Your task to perform on an android device: turn off picture-in-picture Image 0: 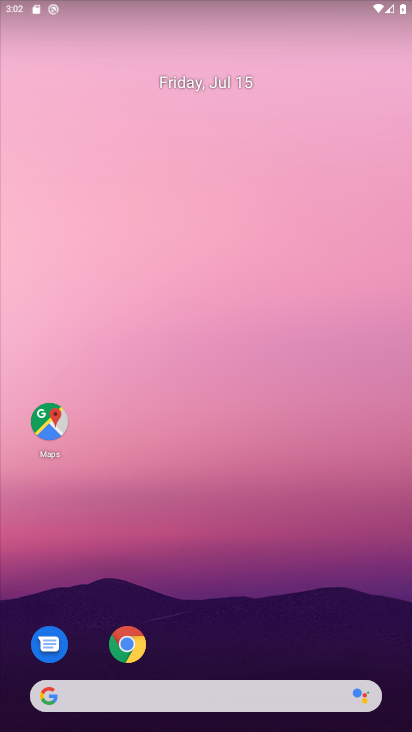
Step 0: click (133, 642)
Your task to perform on an android device: turn off picture-in-picture Image 1: 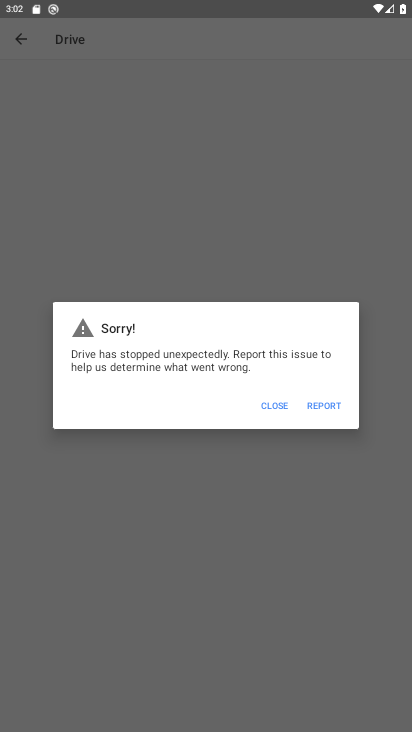
Step 1: press home button
Your task to perform on an android device: turn off picture-in-picture Image 2: 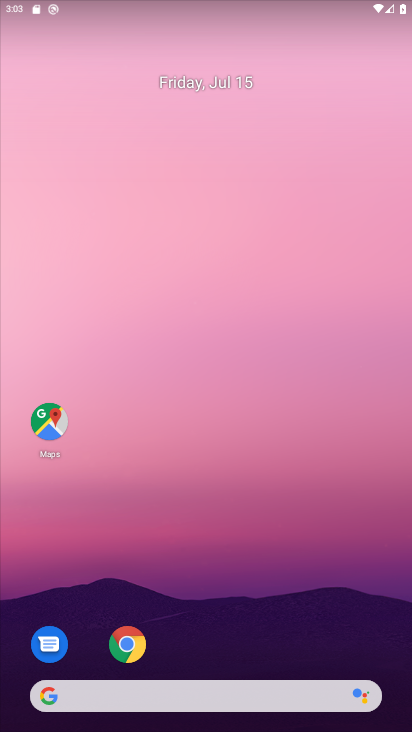
Step 2: click (131, 643)
Your task to perform on an android device: turn off picture-in-picture Image 3: 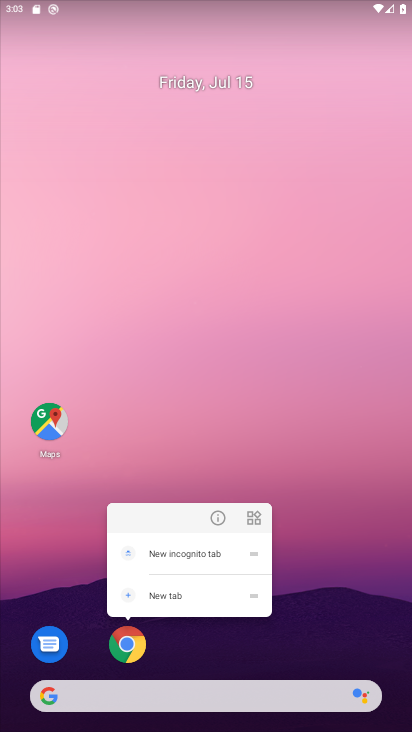
Step 3: click (222, 514)
Your task to perform on an android device: turn off picture-in-picture Image 4: 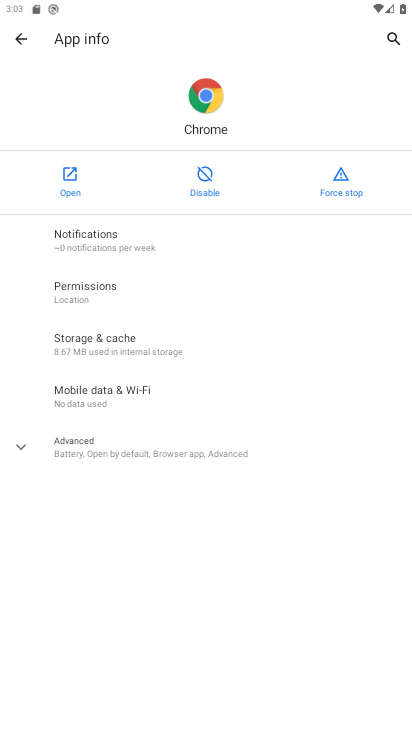
Step 4: click (120, 453)
Your task to perform on an android device: turn off picture-in-picture Image 5: 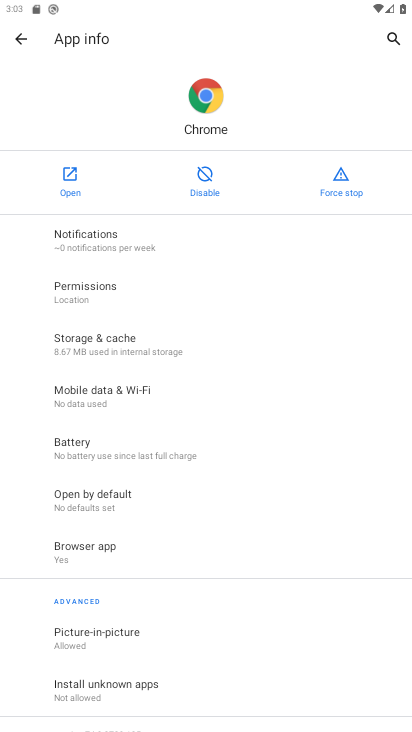
Step 5: click (150, 657)
Your task to perform on an android device: turn off picture-in-picture Image 6: 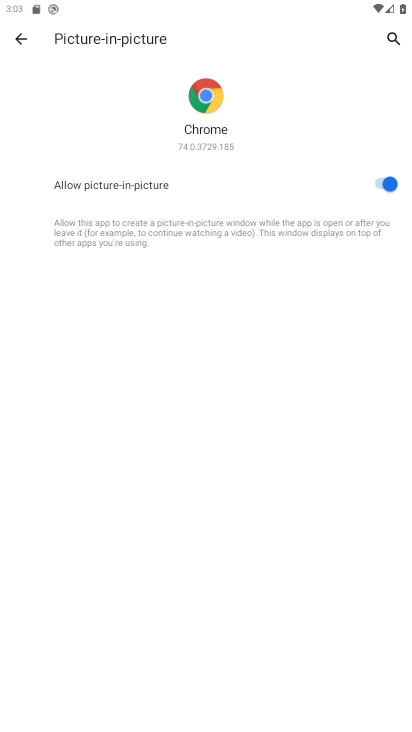
Step 6: click (379, 180)
Your task to perform on an android device: turn off picture-in-picture Image 7: 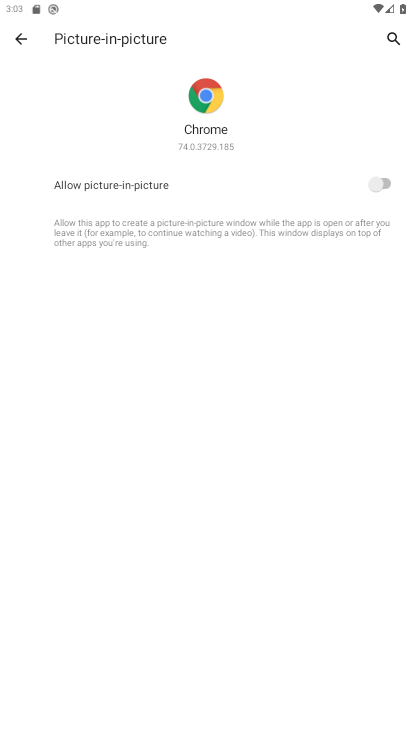
Step 7: task complete